Your task to perform on an android device: Go to eBay Image 0: 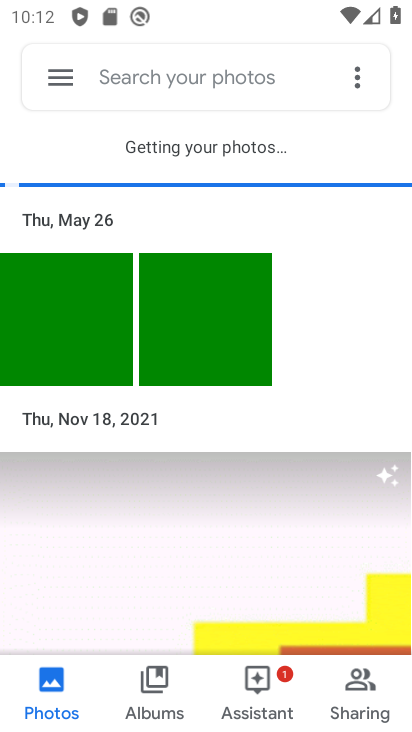
Step 0: press home button
Your task to perform on an android device: Go to eBay Image 1: 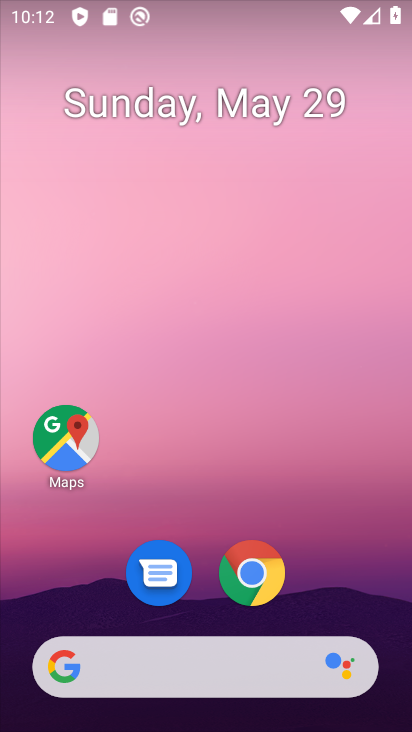
Step 1: click (262, 587)
Your task to perform on an android device: Go to eBay Image 2: 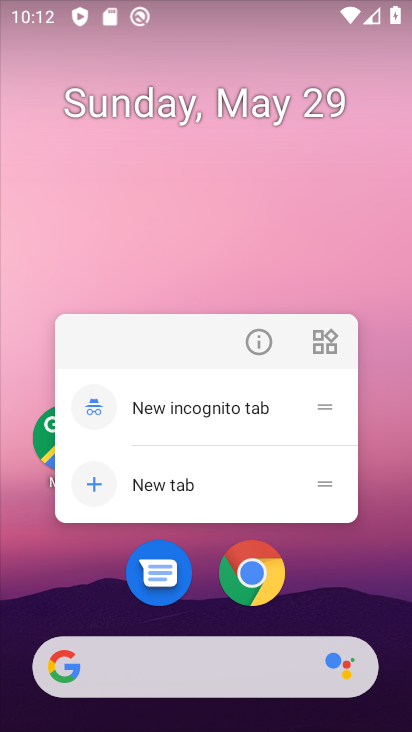
Step 2: click (250, 576)
Your task to perform on an android device: Go to eBay Image 3: 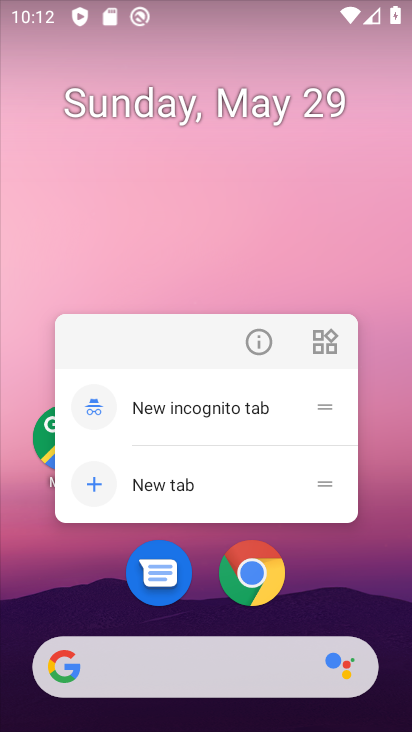
Step 3: click (259, 576)
Your task to perform on an android device: Go to eBay Image 4: 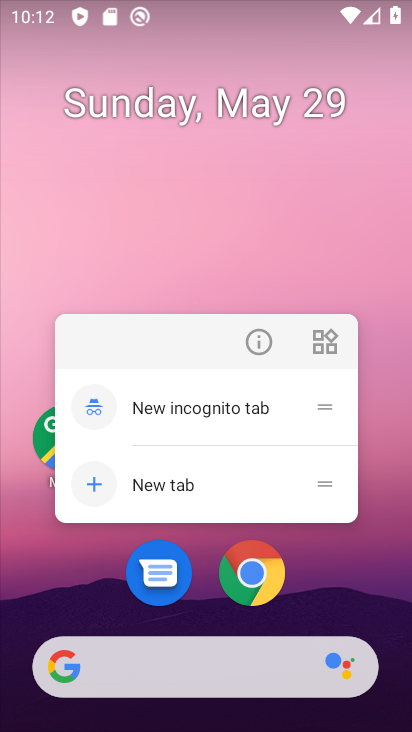
Step 4: click (263, 605)
Your task to perform on an android device: Go to eBay Image 5: 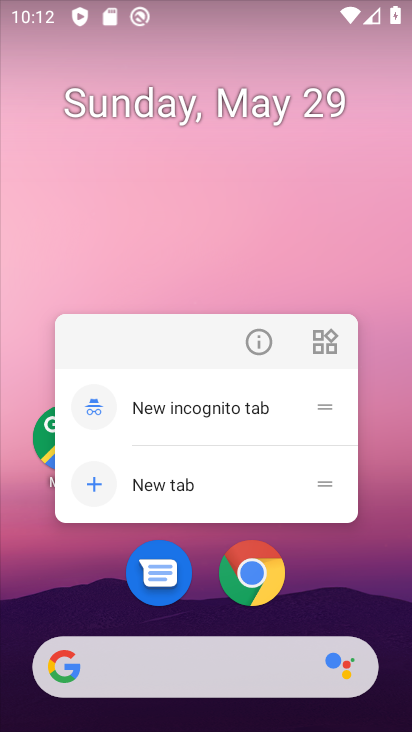
Step 5: click (243, 574)
Your task to perform on an android device: Go to eBay Image 6: 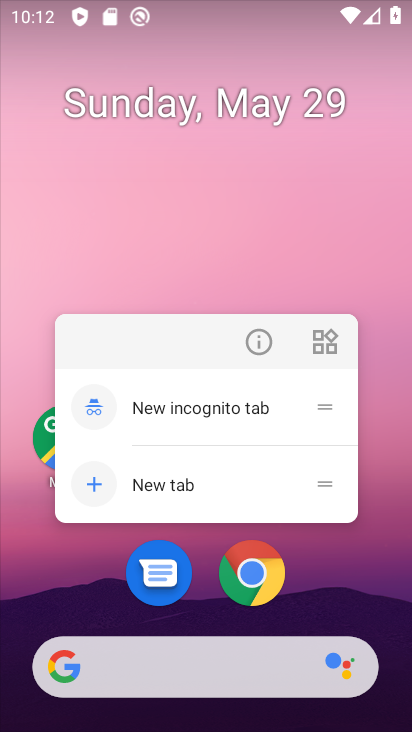
Step 6: click (260, 571)
Your task to perform on an android device: Go to eBay Image 7: 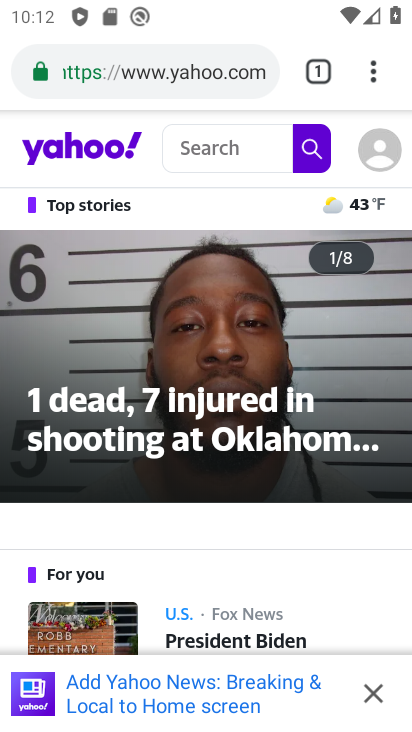
Step 7: drag from (385, 76) to (343, 153)
Your task to perform on an android device: Go to eBay Image 8: 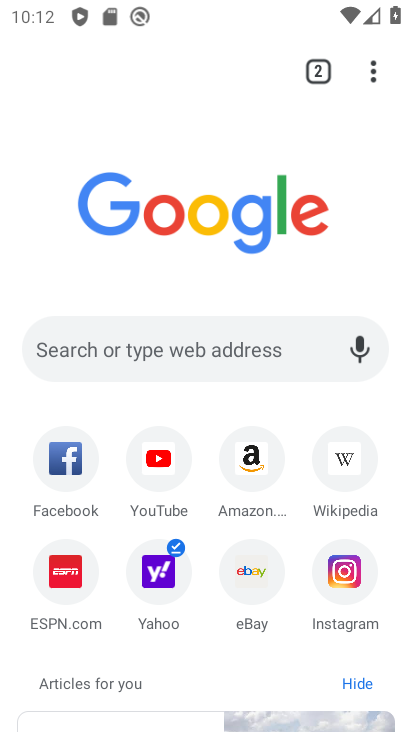
Step 8: click (250, 573)
Your task to perform on an android device: Go to eBay Image 9: 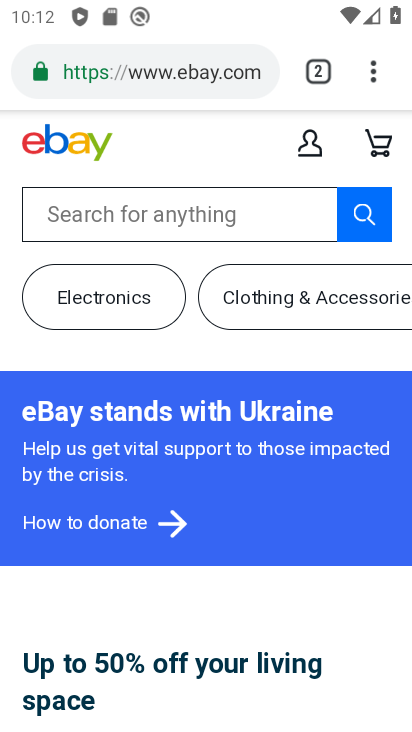
Step 9: task complete